Your task to perform on an android device: turn off notifications settings in the gmail app Image 0: 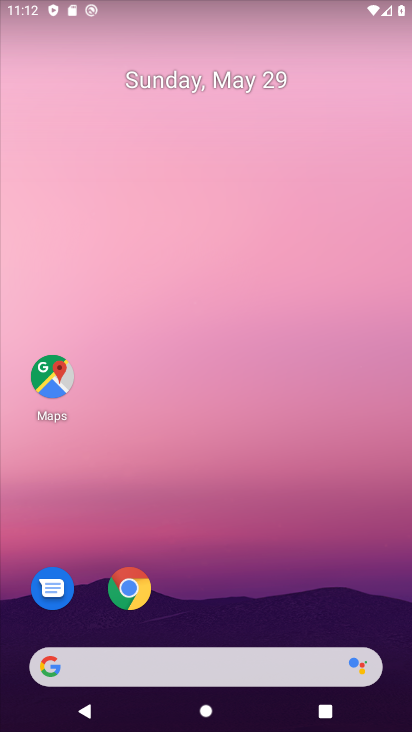
Step 0: drag from (252, 475) to (187, 12)
Your task to perform on an android device: turn off notifications settings in the gmail app Image 1: 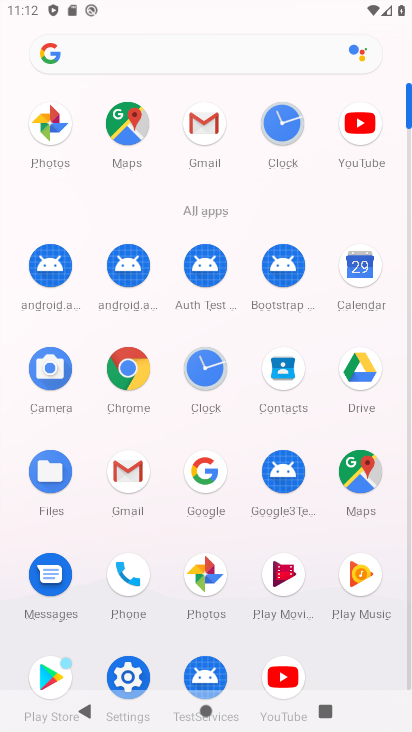
Step 1: click (211, 141)
Your task to perform on an android device: turn off notifications settings in the gmail app Image 2: 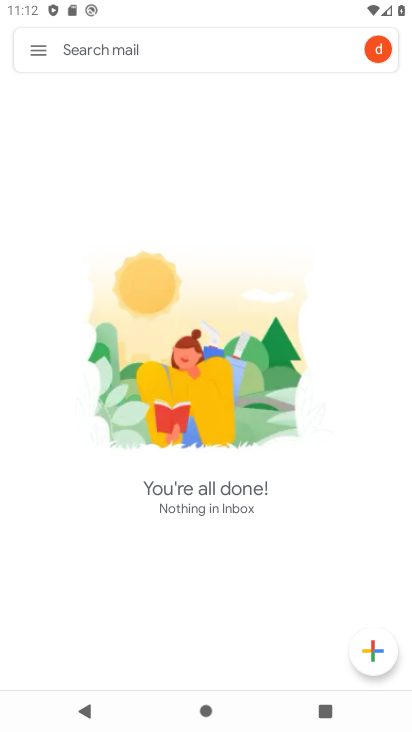
Step 2: click (43, 56)
Your task to perform on an android device: turn off notifications settings in the gmail app Image 3: 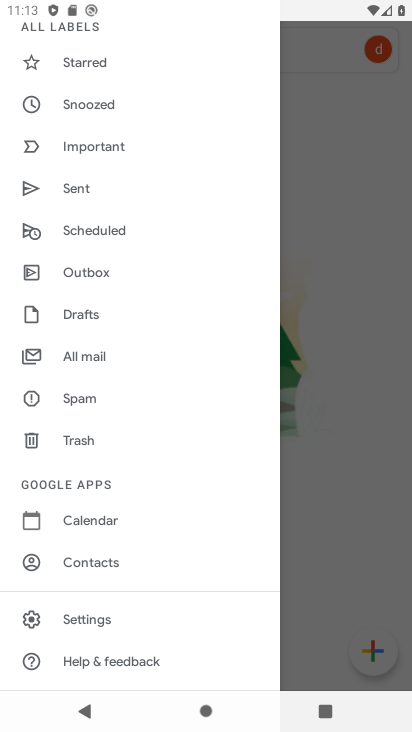
Step 3: click (97, 619)
Your task to perform on an android device: turn off notifications settings in the gmail app Image 4: 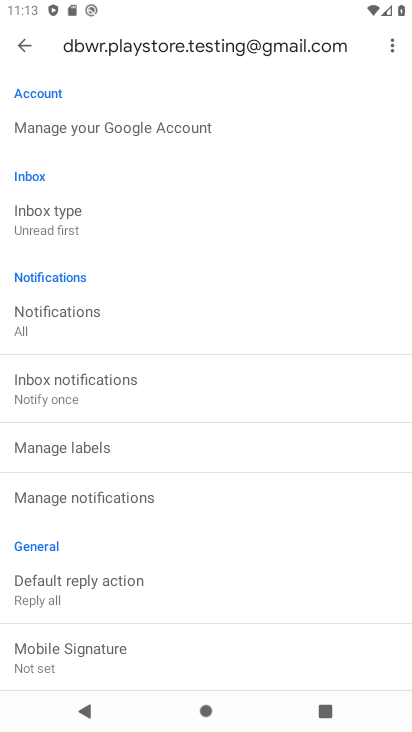
Step 4: click (92, 306)
Your task to perform on an android device: turn off notifications settings in the gmail app Image 5: 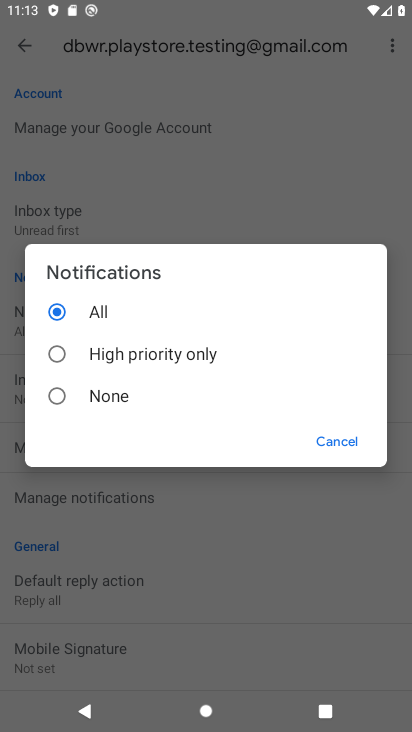
Step 5: click (121, 400)
Your task to perform on an android device: turn off notifications settings in the gmail app Image 6: 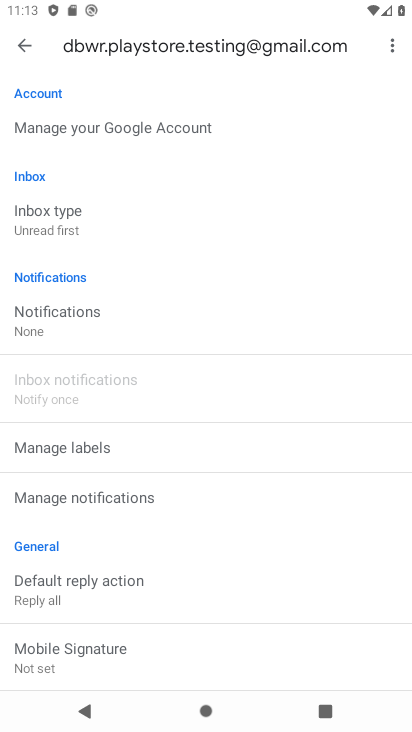
Step 6: task complete